Your task to perform on an android device: move a message to another label in the gmail app Image 0: 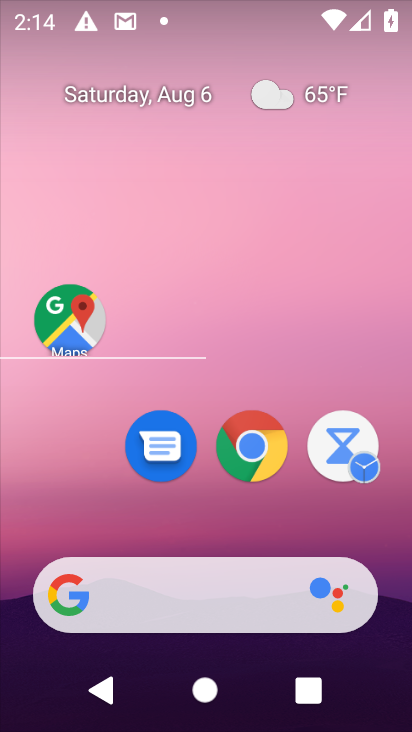
Step 0: click (213, 181)
Your task to perform on an android device: move a message to another label in the gmail app Image 1: 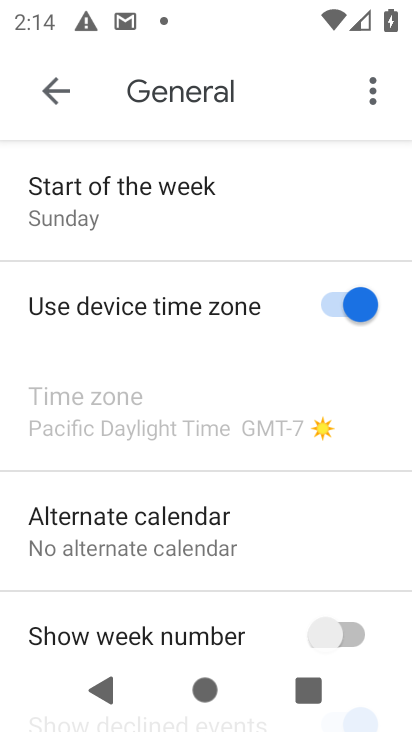
Step 1: press back button
Your task to perform on an android device: move a message to another label in the gmail app Image 2: 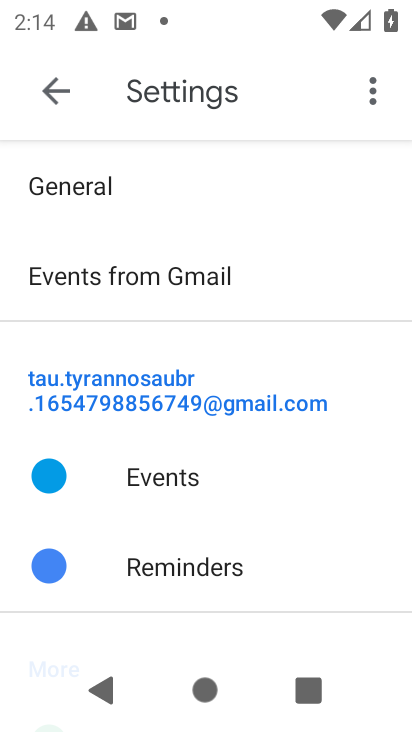
Step 2: click (59, 81)
Your task to perform on an android device: move a message to another label in the gmail app Image 3: 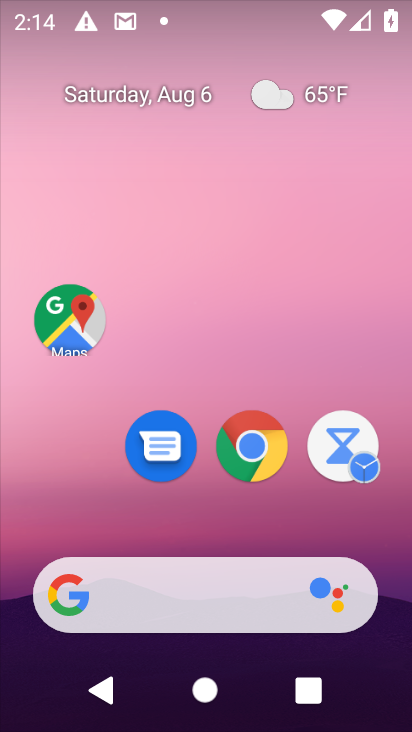
Step 3: drag from (172, 529) to (94, 176)
Your task to perform on an android device: move a message to another label in the gmail app Image 4: 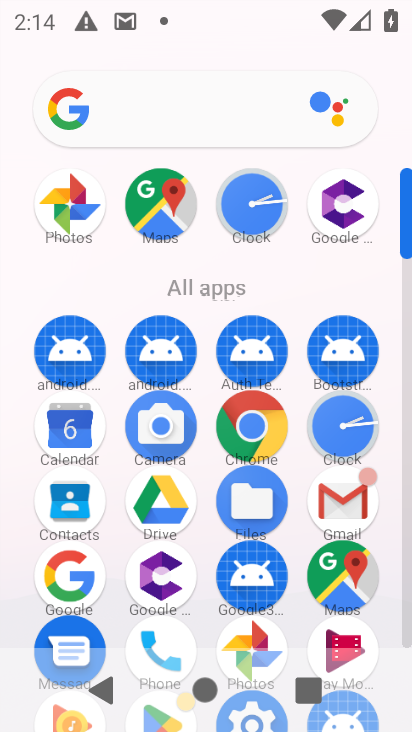
Step 4: click (330, 504)
Your task to perform on an android device: move a message to another label in the gmail app Image 5: 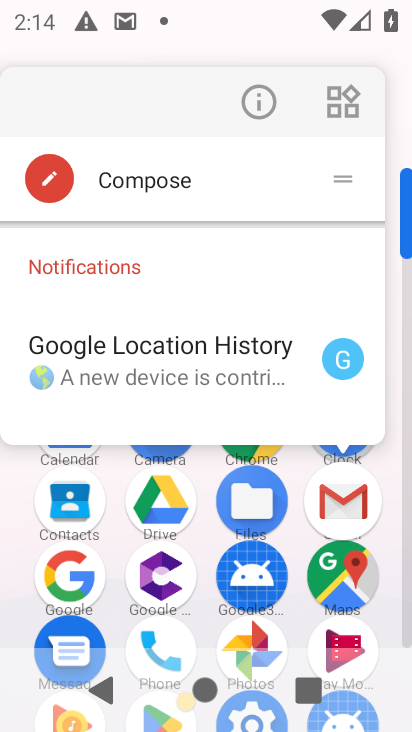
Step 5: click (329, 505)
Your task to perform on an android device: move a message to another label in the gmail app Image 6: 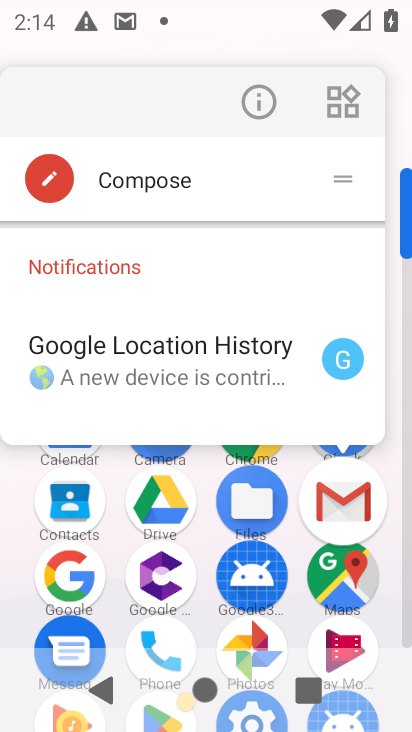
Step 6: click (330, 506)
Your task to perform on an android device: move a message to another label in the gmail app Image 7: 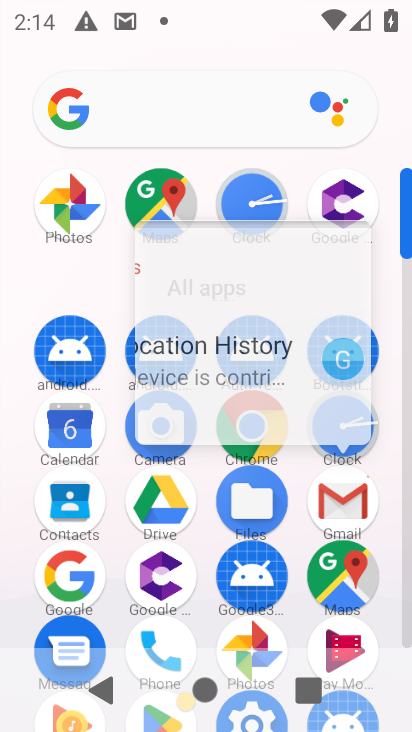
Step 7: click (330, 506)
Your task to perform on an android device: move a message to another label in the gmail app Image 8: 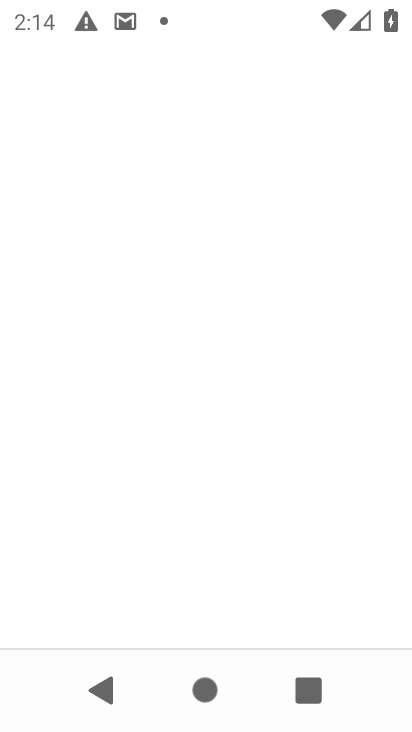
Step 8: click (330, 499)
Your task to perform on an android device: move a message to another label in the gmail app Image 9: 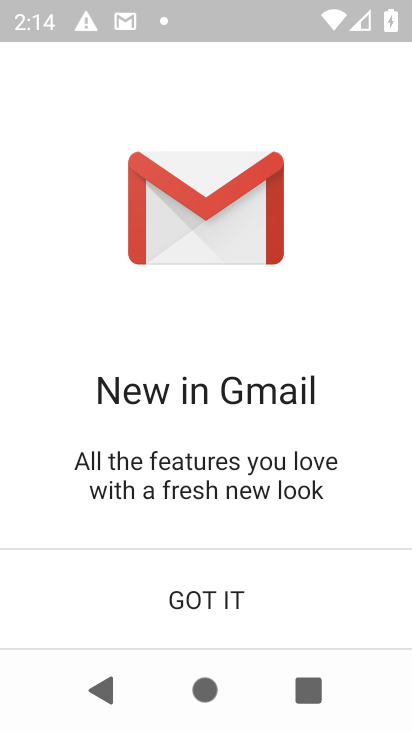
Step 9: click (192, 589)
Your task to perform on an android device: move a message to another label in the gmail app Image 10: 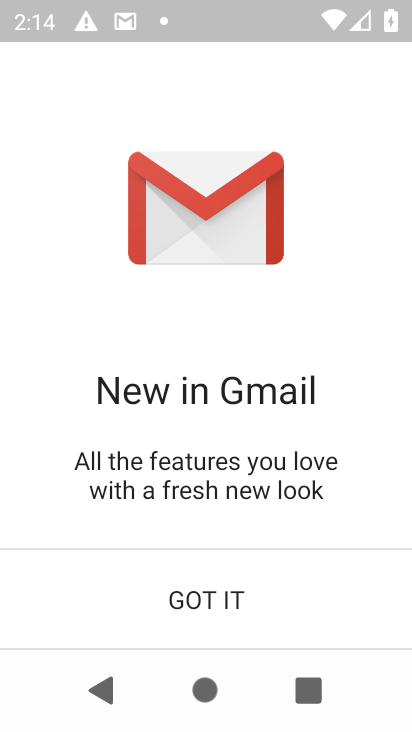
Step 10: click (192, 591)
Your task to perform on an android device: move a message to another label in the gmail app Image 11: 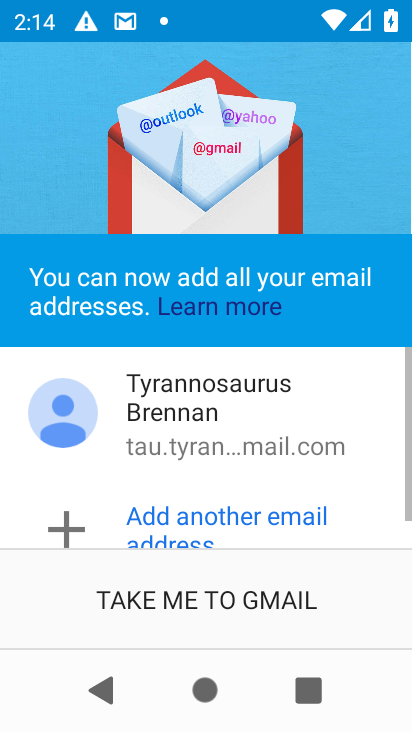
Step 11: click (192, 591)
Your task to perform on an android device: move a message to another label in the gmail app Image 12: 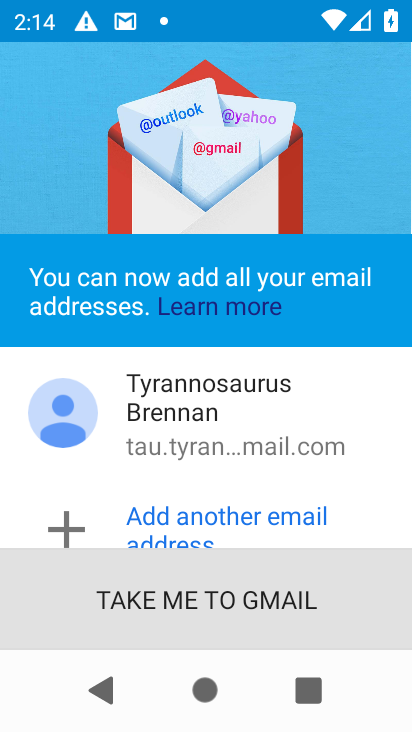
Step 12: click (192, 591)
Your task to perform on an android device: move a message to another label in the gmail app Image 13: 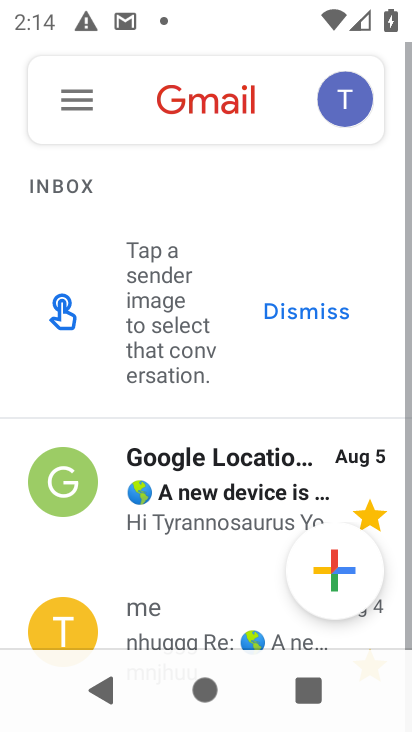
Step 13: click (76, 105)
Your task to perform on an android device: move a message to another label in the gmail app Image 14: 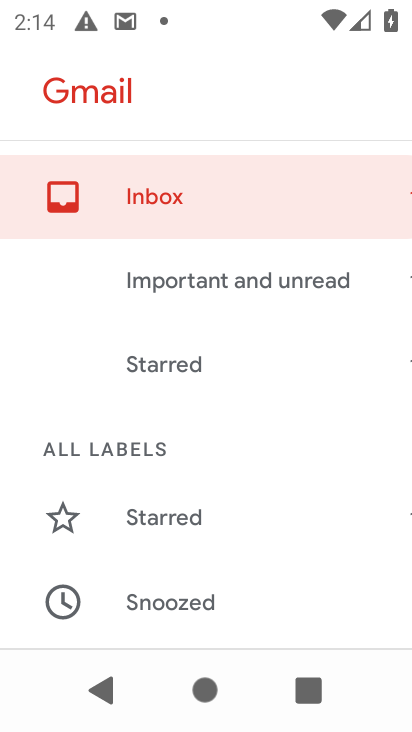
Step 14: drag from (195, 589) to (194, 230)
Your task to perform on an android device: move a message to another label in the gmail app Image 15: 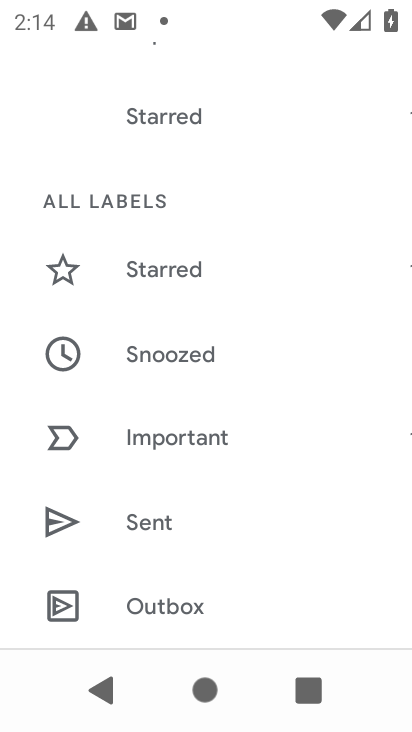
Step 15: drag from (226, 355) to (226, 314)
Your task to perform on an android device: move a message to another label in the gmail app Image 16: 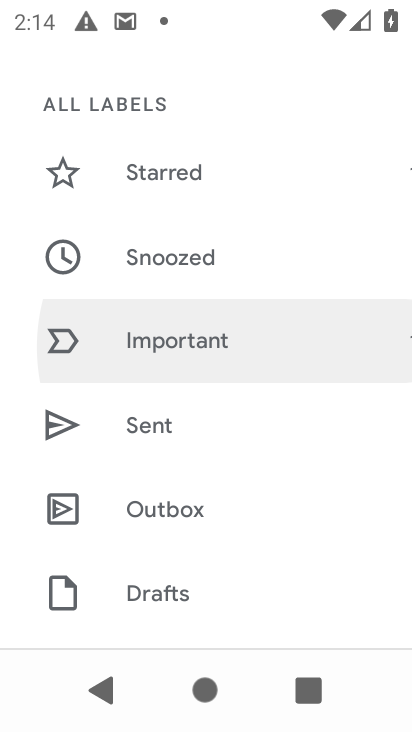
Step 16: drag from (250, 552) to (249, 352)
Your task to perform on an android device: move a message to another label in the gmail app Image 17: 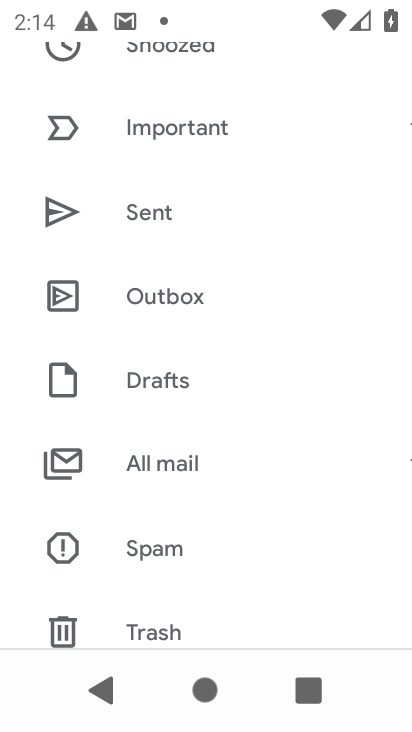
Step 17: click (158, 463)
Your task to perform on an android device: move a message to another label in the gmail app Image 18: 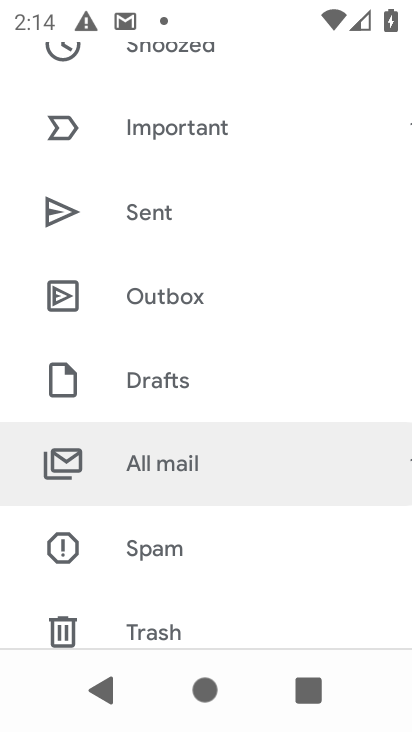
Step 18: click (159, 462)
Your task to perform on an android device: move a message to another label in the gmail app Image 19: 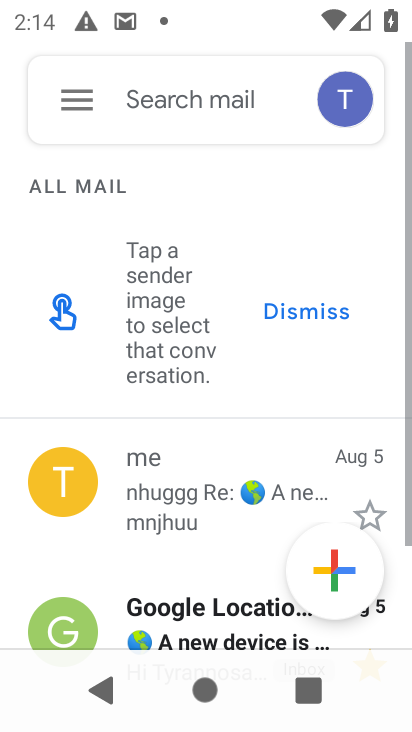
Step 19: drag from (174, 324) to (173, 160)
Your task to perform on an android device: move a message to another label in the gmail app Image 20: 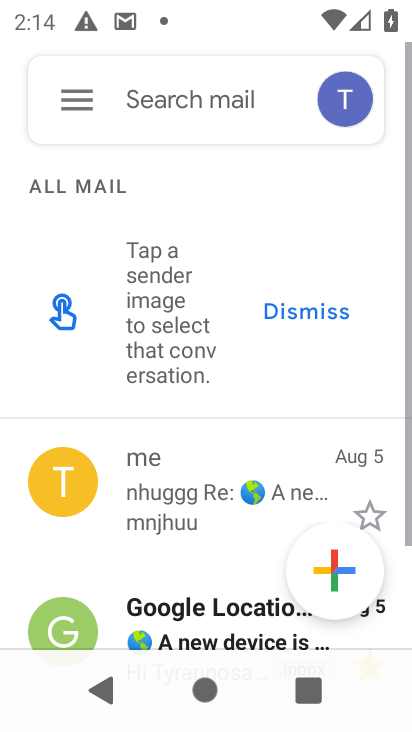
Step 20: drag from (191, 402) to (228, 215)
Your task to perform on an android device: move a message to another label in the gmail app Image 21: 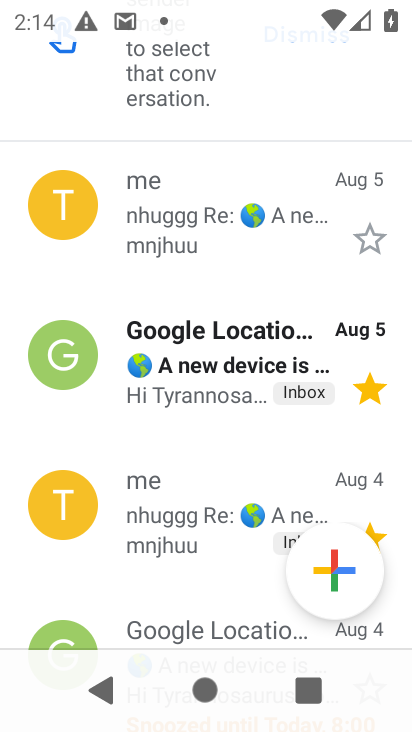
Step 21: click (366, 241)
Your task to perform on an android device: move a message to another label in the gmail app Image 22: 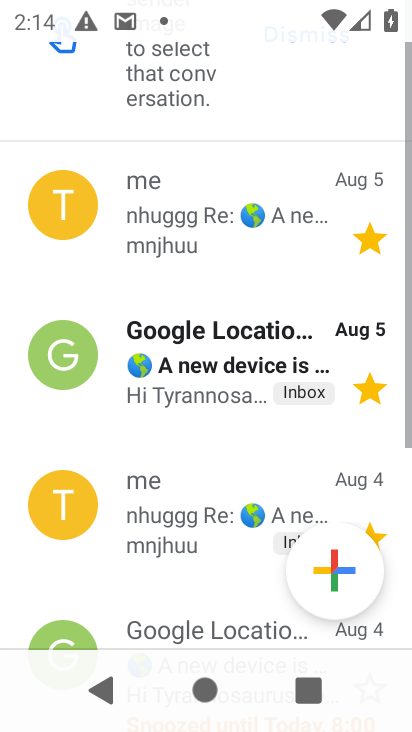
Step 22: task complete